Your task to perform on an android device: Go to eBay Image 0: 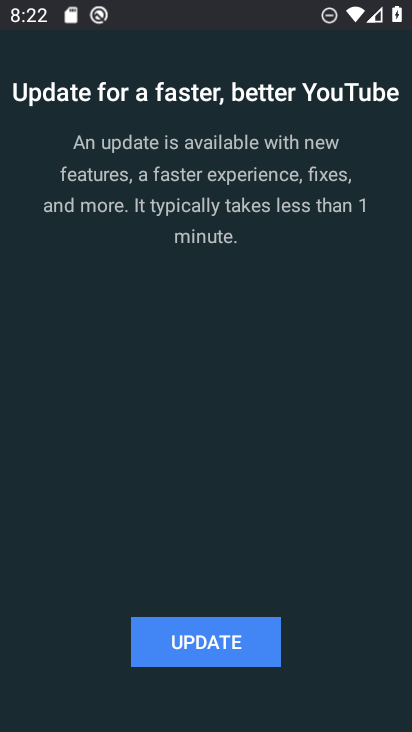
Step 0: press home button
Your task to perform on an android device: Go to eBay Image 1: 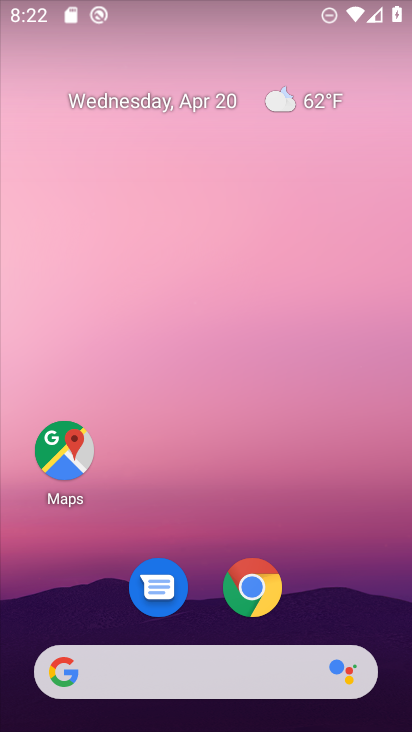
Step 1: click (269, 590)
Your task to perform on an android device: Go to eBay Image 2: 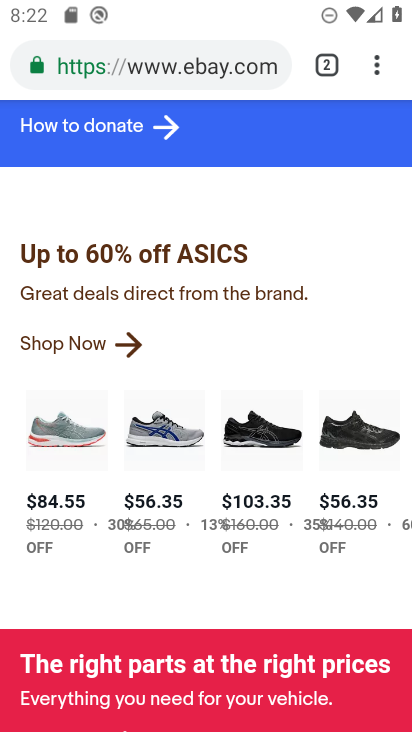
Step 2: task complete